Your task to perform on an android device: check out phone information Image 0: 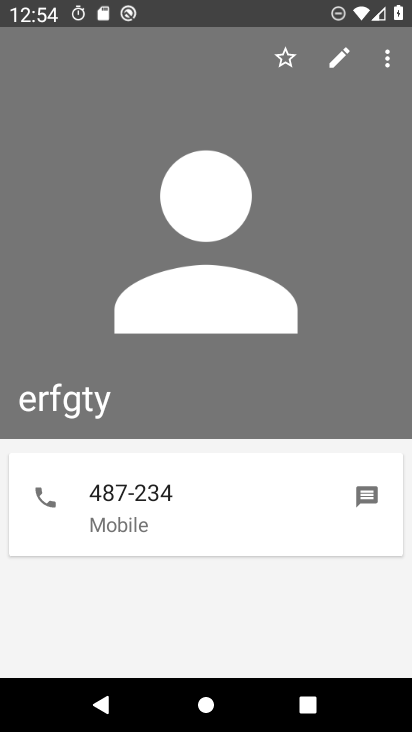
Step 0: press home button
Your task to perform on an android device: check out phone information Image 1: 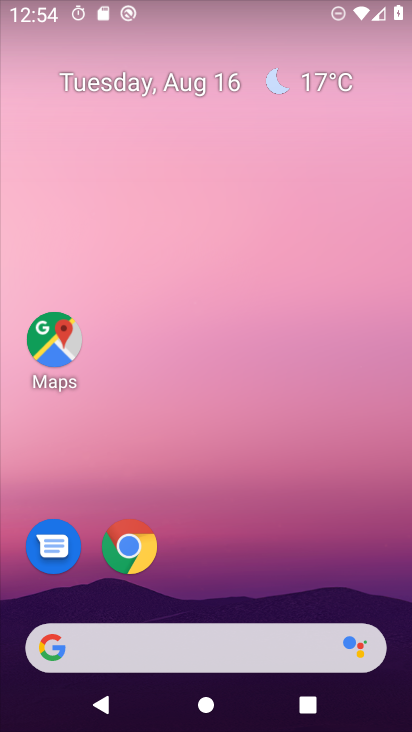
Step 1: drag from (206, 606) to (200, 138)
Your task to perform on an android device: check out phone information Image 2: 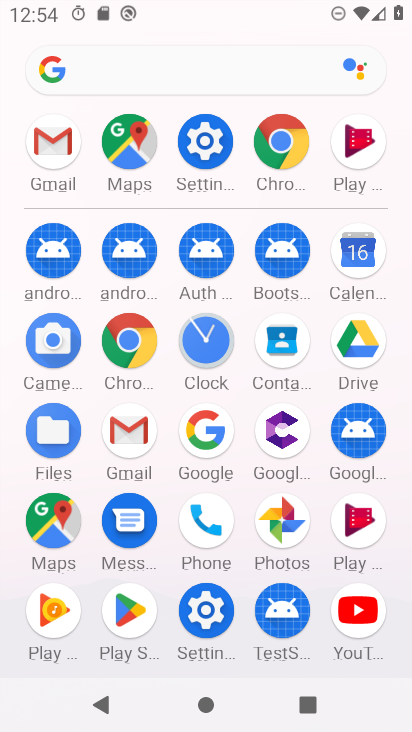
Step 2: click (193, 143)
Your task to perform on an android device: check out phone information Image 3: 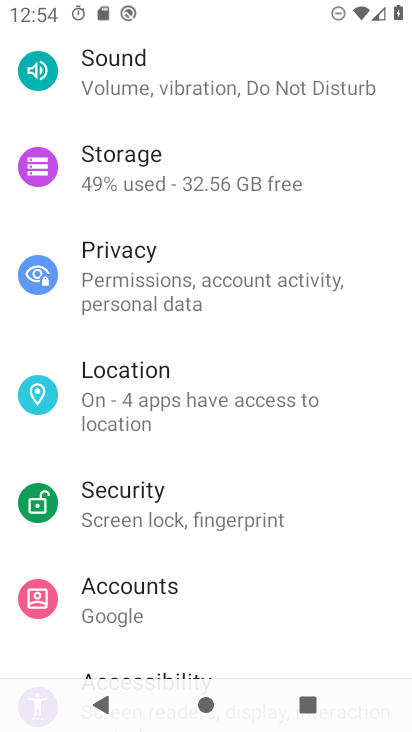
Step 3: drag from (141, 643) to (141, 261)
Your task to perform on an android device: check out phone information Image 4: 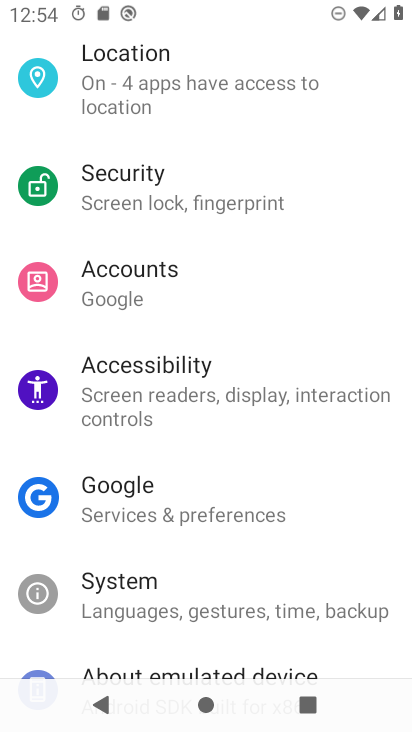
Step 4: drag from (154, 640) to (166, 393)
Your task to perform on an android device: check out phone information Image 5: 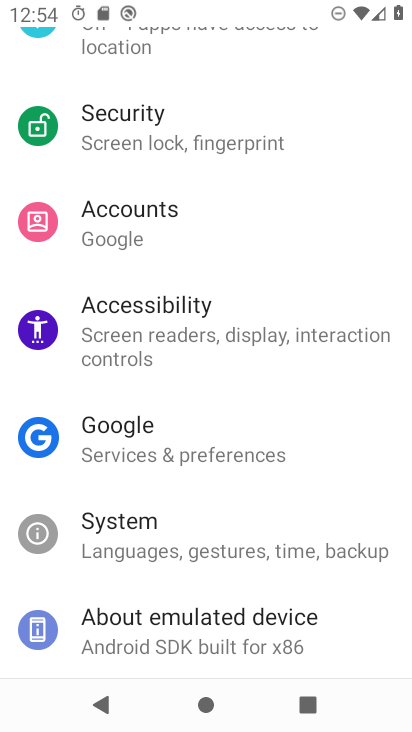
Step 5: click (140, 639)
Your task to perform on an android device: check out phone information Image 6: 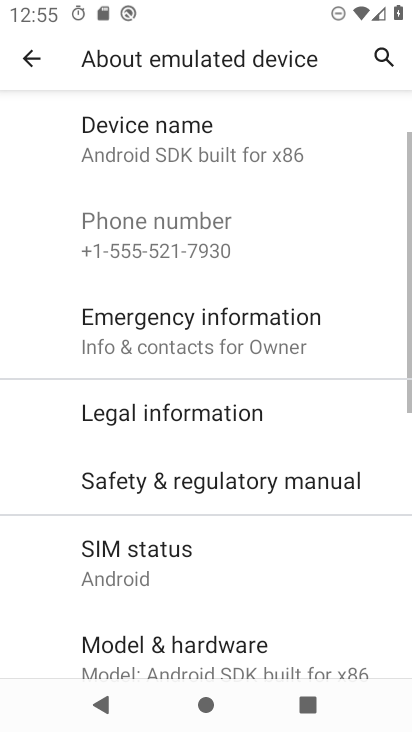
Step 6: drag from (166, 656) to (149, 336)
Your task to perform on an android device: check out phone information Image 7: 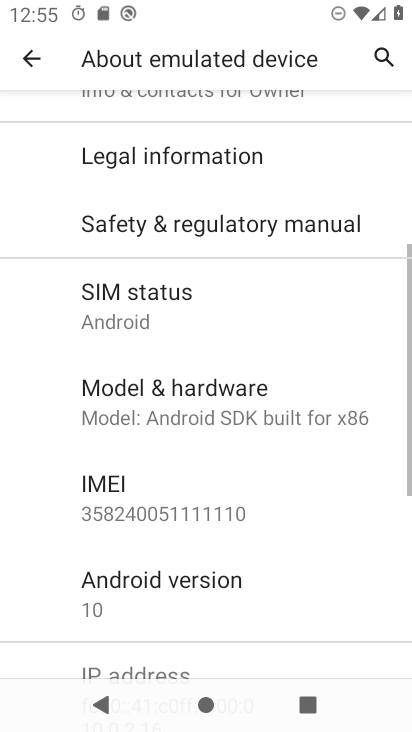
Step 7: click (147, 252)
Your task to perform on an android device: check out phone information Image 8: 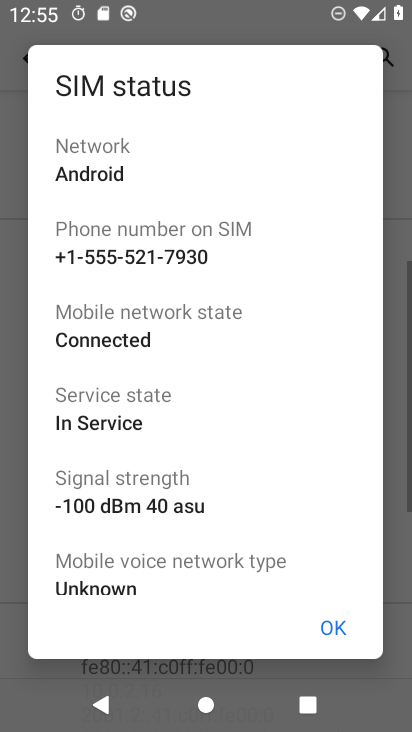
Step 8: task complete